Your task to perform on an android device: check google app version Image 0: 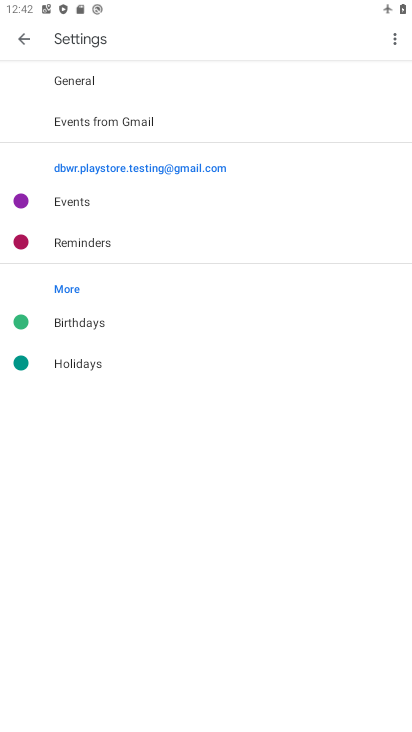
Step 0: press home button
Your task to perform on an android device: check google app version Image 1: 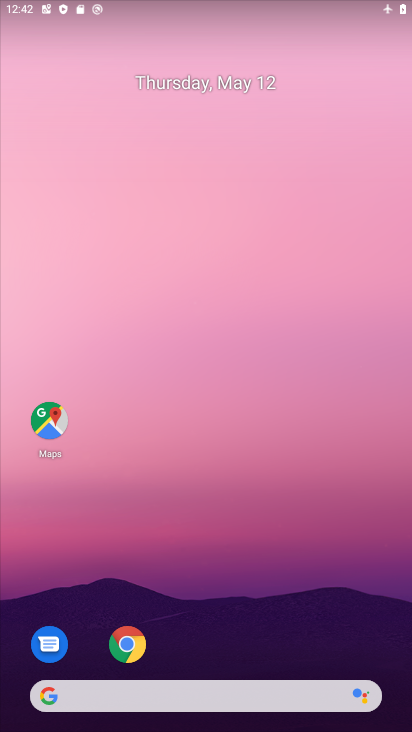
Step 1: drag from (254, 608) to (188, 83)
Your task to perform on an android device: check google app version Image 2: 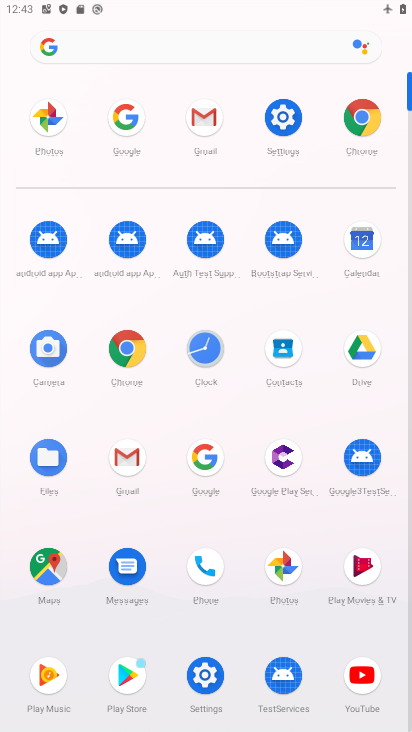
Step 2: click (204, 438)
Your task to perform on an android device: check google app version Image 3: 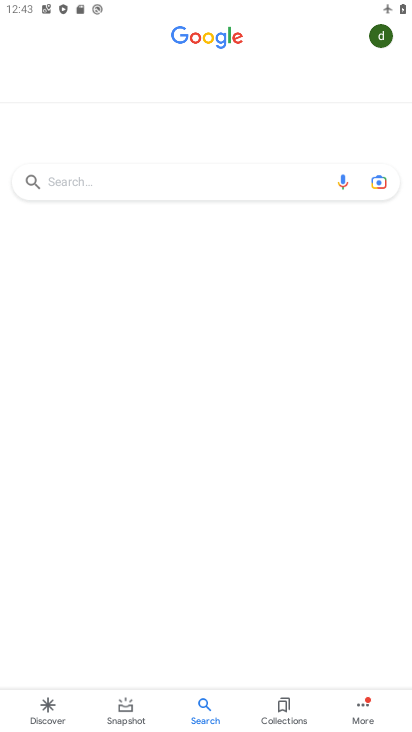
Step 3: click (370, 713)
Your task to perform on an android device: check google app version Image 4: 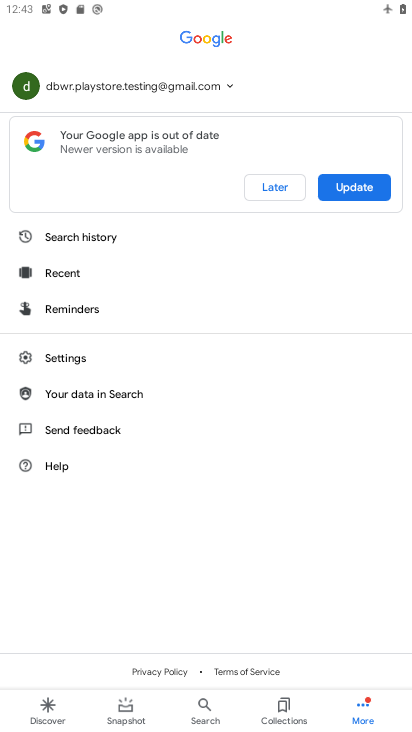
Step 4: click (72, 349)
Your task to perform on an android device: check google app version Image 5: 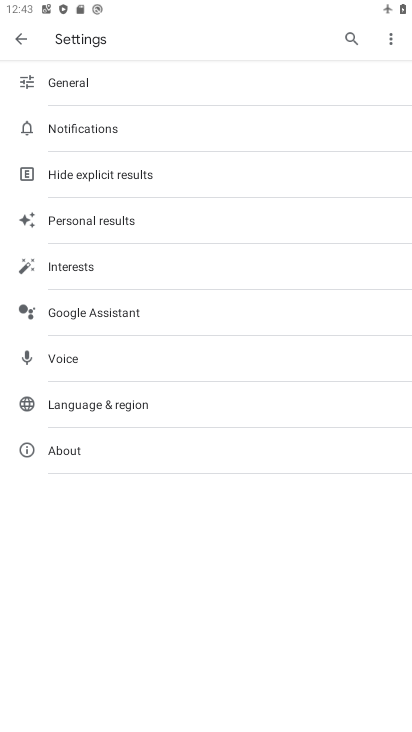
Step 5: click (100, 454)
Your task to perform on an android device: check google app version Image 6: 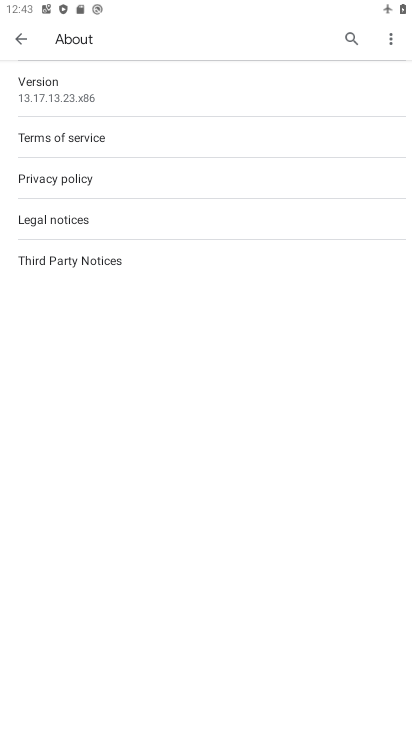
Step 6: click (132, 89)
Your task to perform on an android device: check google app version Image 7: 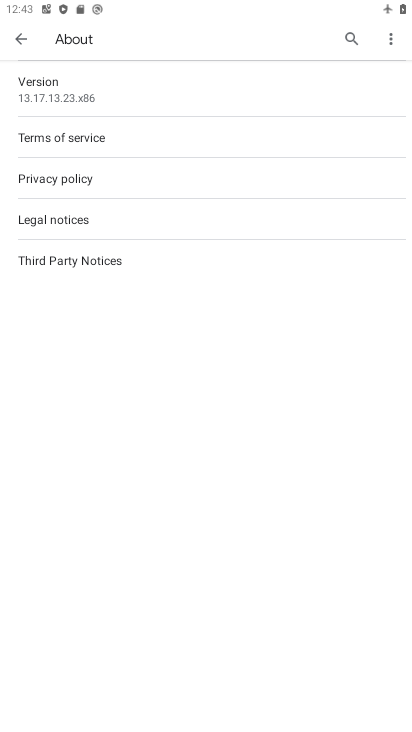
Step 7: task complete